Your task to perform on an android device: toggle improve location accuracy Image 0: 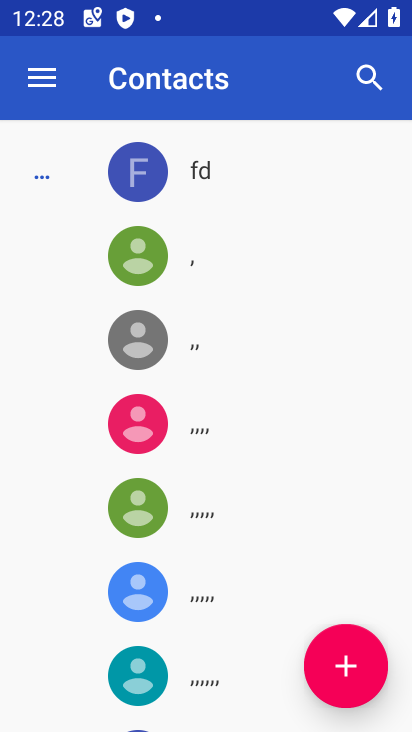
Step 0: press home button
Your task to perform on an android device: toggle improve location accuracy Image 1: 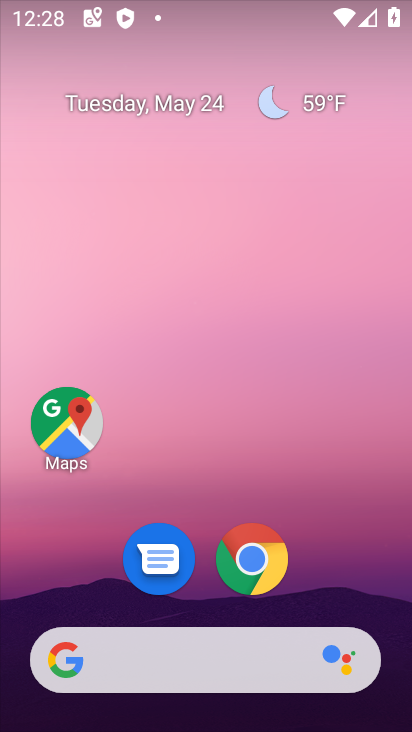
Step 1: drag from (391, 694) to (122, 50)
Your task to perform on an android device: toggle improve location accuracy Image 2: 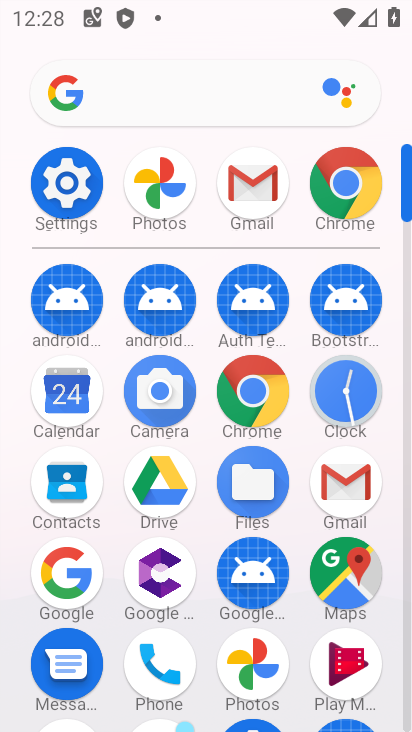
Step 2: click (65, 172)
Your task to perform on an android device: toggle improve location accuracy Image 3: 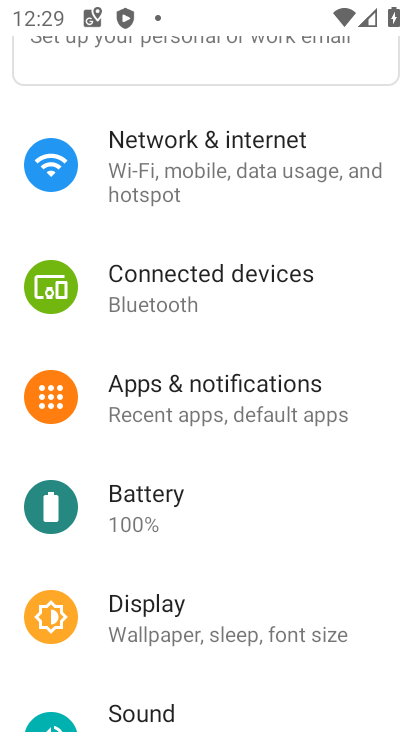
Step 3: drag from (349, 687) to (344, 400)
Your task to perform on an android device: toggle improve location accuracy Image 4: 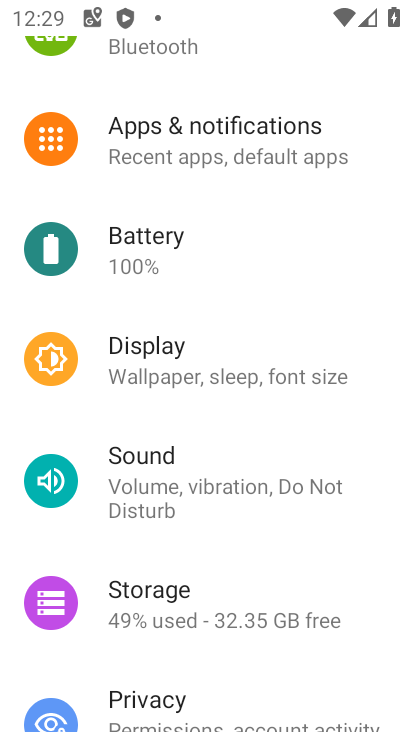
Step 4: drag from (359, 675) to (371, 243)
Your task to perform on an android device: toggle improve location accuracy Image 5: 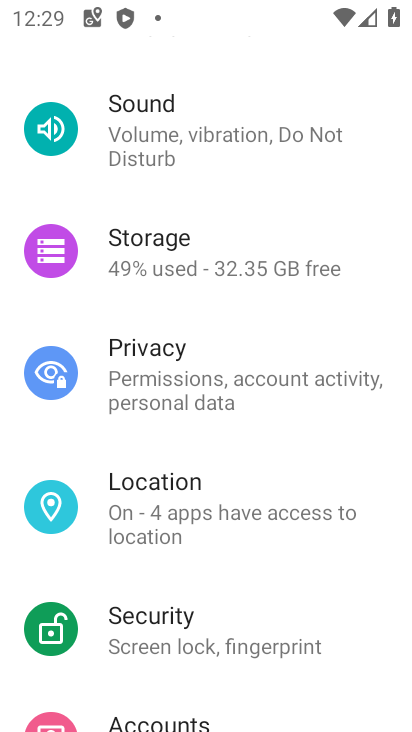
Step 5: click (129, 492)
Your task to perform on an android device: toggle improve location accuracy Image 6: 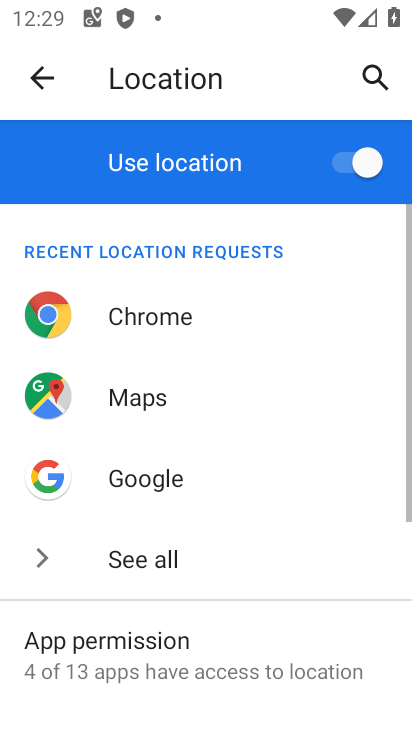
Step 6: drag from (220, 659) to (269, 175)
Your task to perform on an android device: toggle improve location accuracy Image 7: 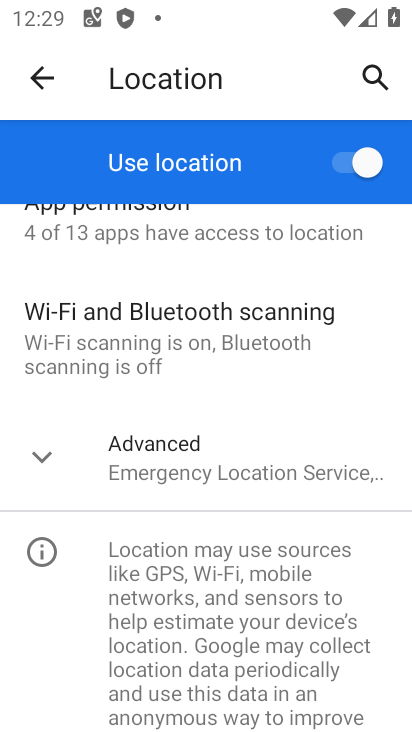
Step 7: click (51, 452)
Your task to perform on an android device: toggle improve location accuracy Image 8: 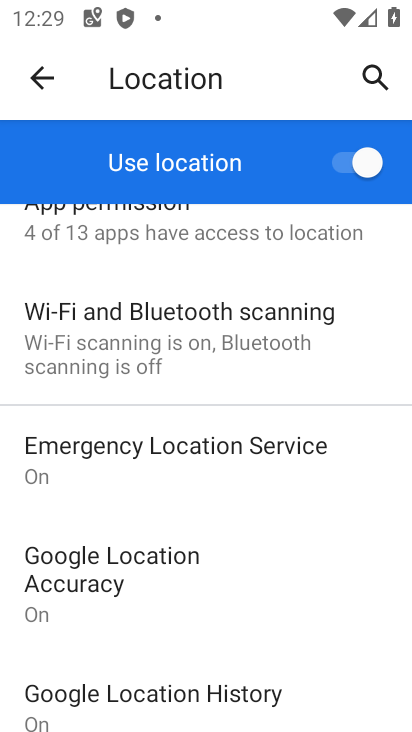
Step 8: click (80, 553)
Your task to perform on an android device: toggle improve location accuracy Image 9: 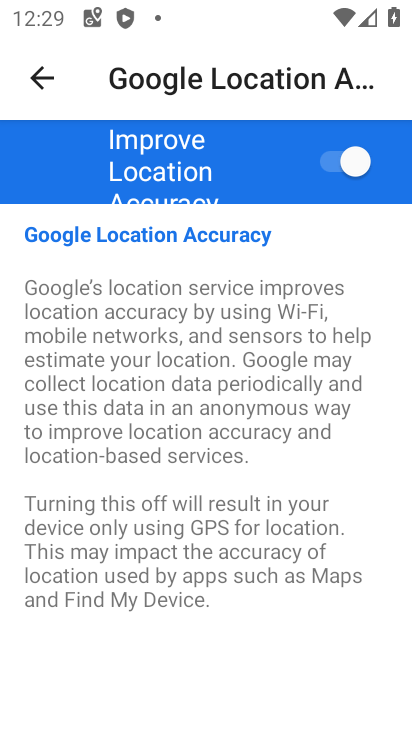
Step 9: click (329, 159)
Your task to perform on an android device: toggle improve location accuracy Image 10: 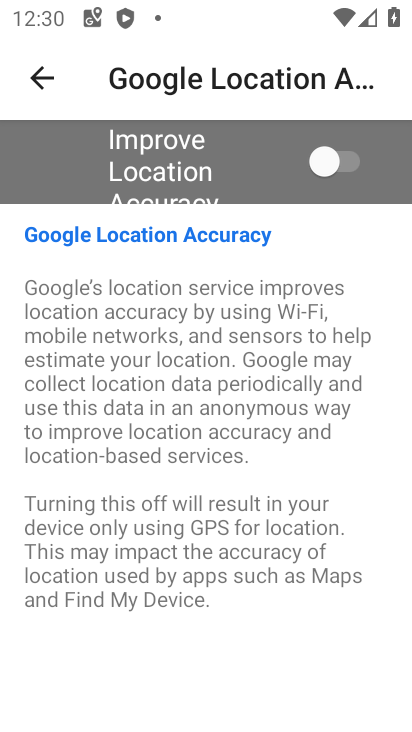
Step 10: task complete